Your task to perform on an android device: toggle pop-ups in chrome Image 0: 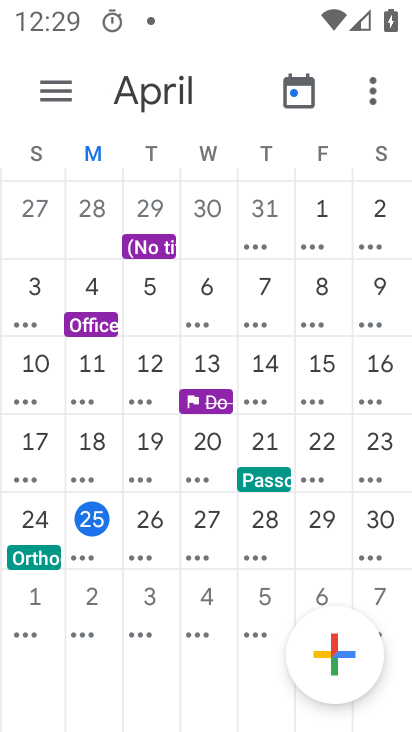
Step 0: press home button
Your task to perform on an android device: toggle pop-ups in chrome Image 1: 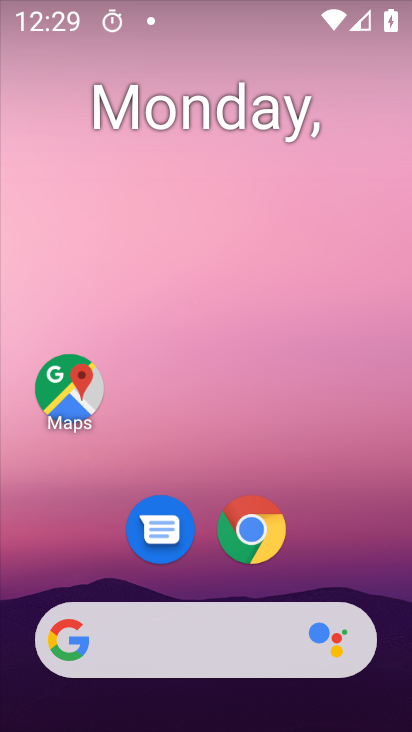
Step 1: click (272, 530)
Your task to perform on an android device: toggle pop-ups in chrome Image 2: 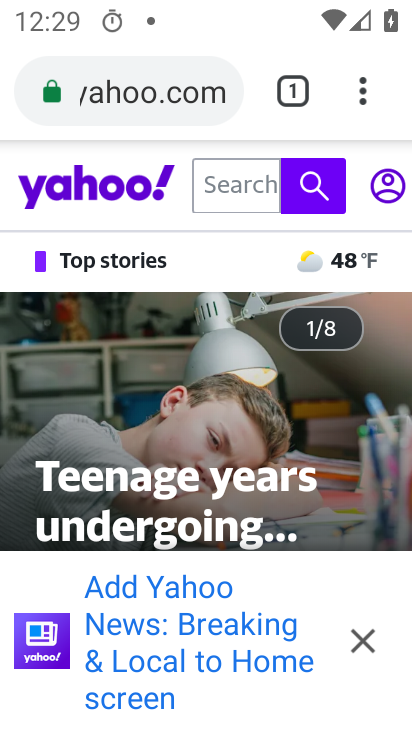
Step 2: click (369, 100)
Your task to perform on an android device: toggle pop-ups in chrome Image 3: 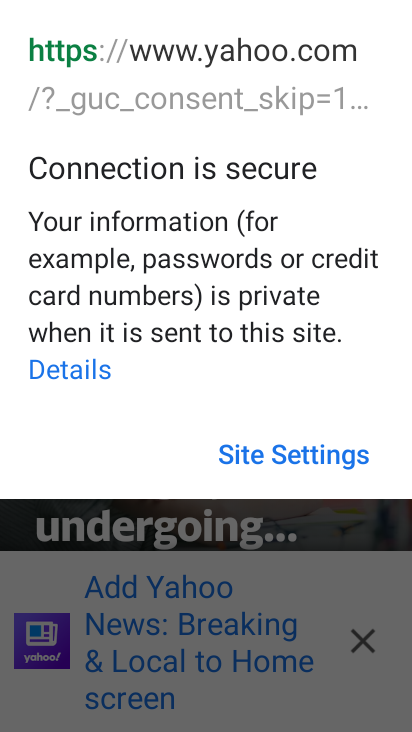
Step 3: press back button
Your task to perform on an android device: toggle pop-ups in chrome Image 4: 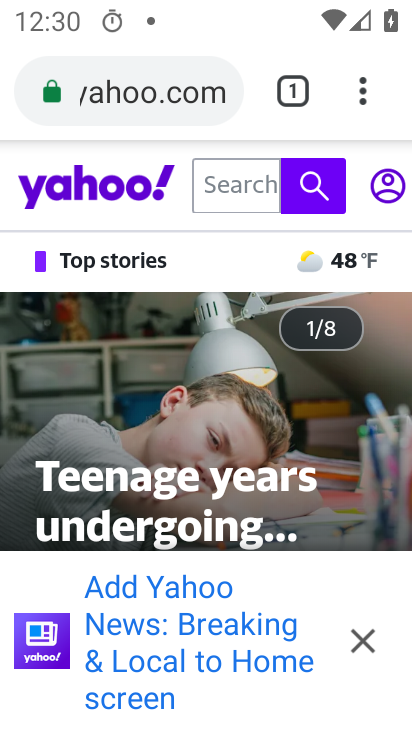
Step 4: drag from (363, 92) to (131, 553)
Your task to perform on an android device: toggle pop-ups in chrome Image 5: 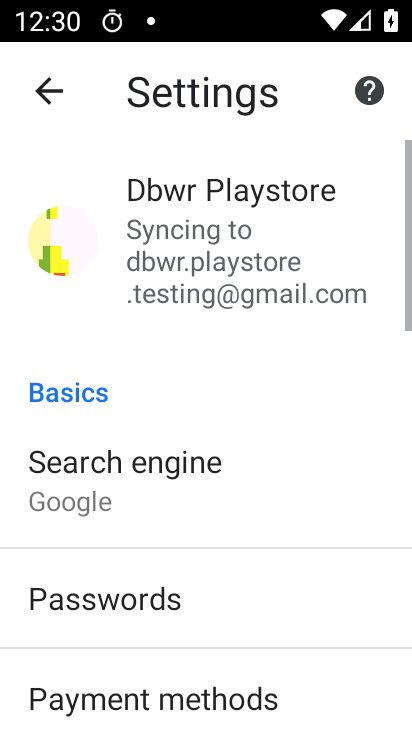
Step 5: drag from (167, 627) to (164, 10)
Your task to perform on an android device: toggle pop-ups in chrome Image 6: 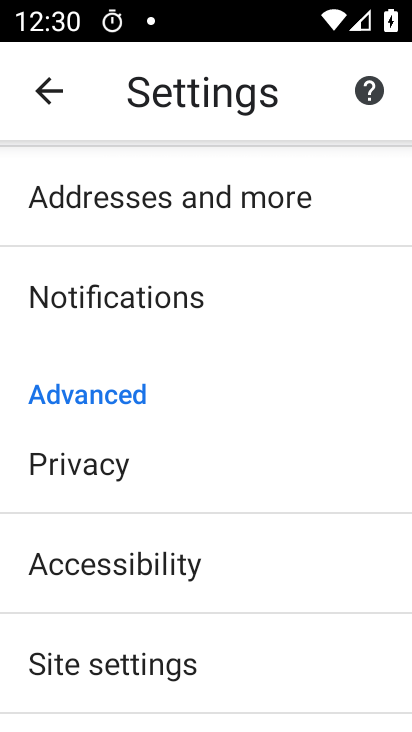
Step 6: click (151, 652)
Your task to perform on an android device: toggle pop-ups in chrome Image 7: 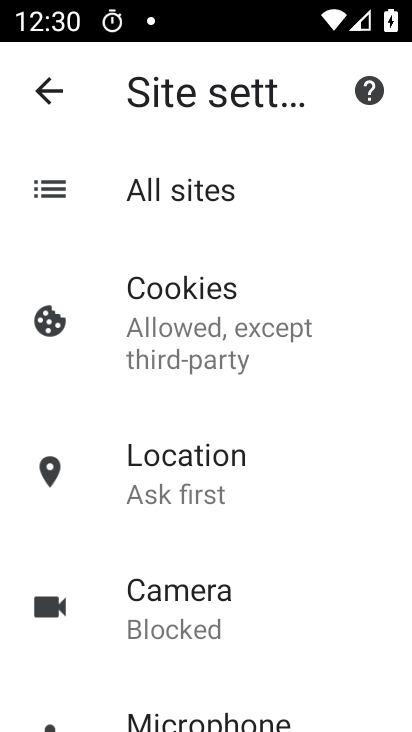
Step 7: drag from (273, 621) to (241, 109)
Your task to perform on an android device: toggle pop-ups in chrome Image 8: 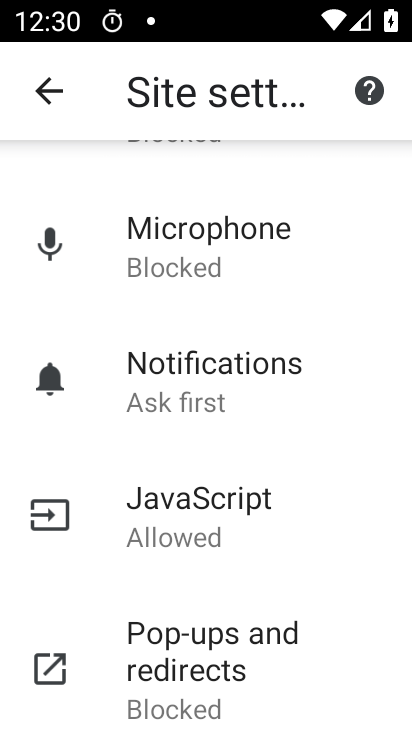
Step 8: click (192, 666)
Your task to perform on an android device: toggle pop-ups in chrome Image 9: 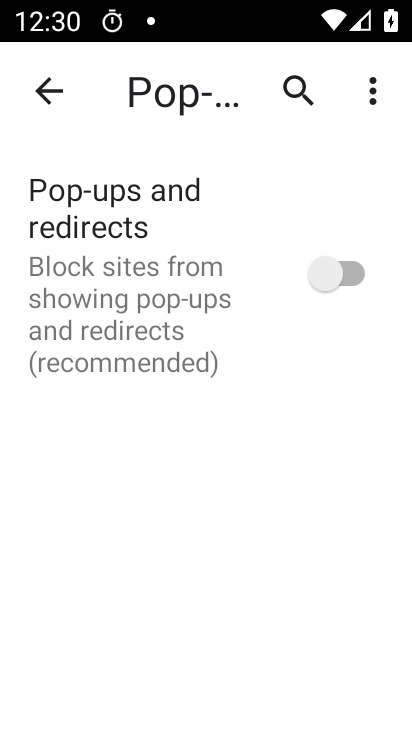
Step 9: click (363, 277)
Your task to perform on an android device: toggle pop-ups in chrome Image 10: 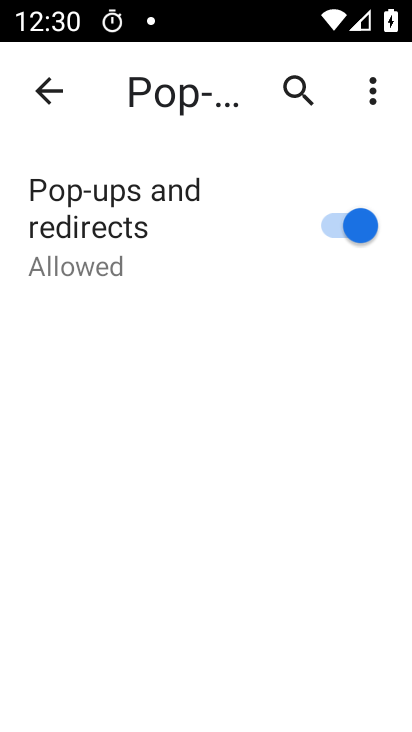
Step 10: task complete